Your task to perform on an android device: delete a single message in the gmail app Image 0: 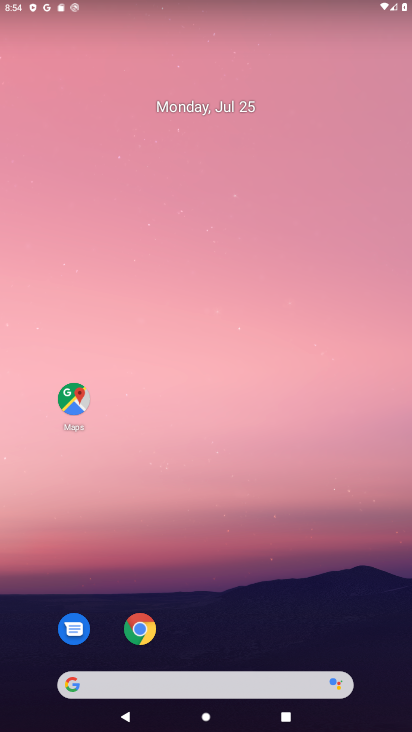
Step 0: click (113, 157)
Your task to perform on an android device: delete a single message in the gmail app Image 1: 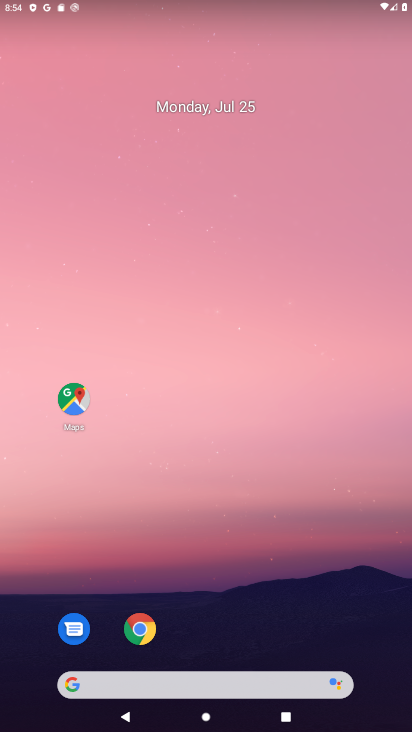
Step 1: drag from (178, 635) to (251, 108)
Your task to perform on an android device: delete a single message in the gmail app Image 2: 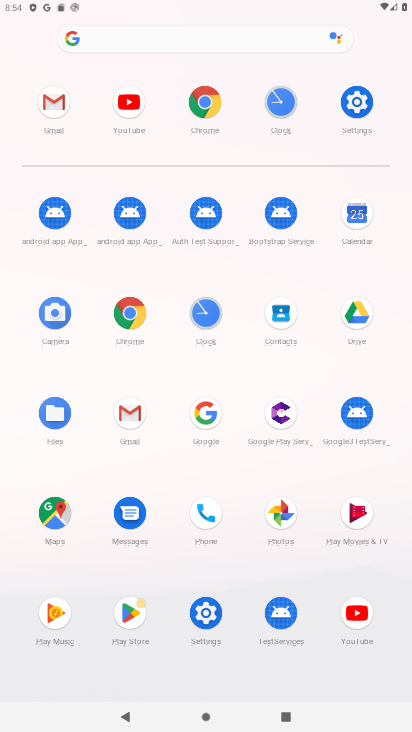
Step 2: click (45, 100)
Your task to perform on an android device: delete a single message in the gmail app Image 3: 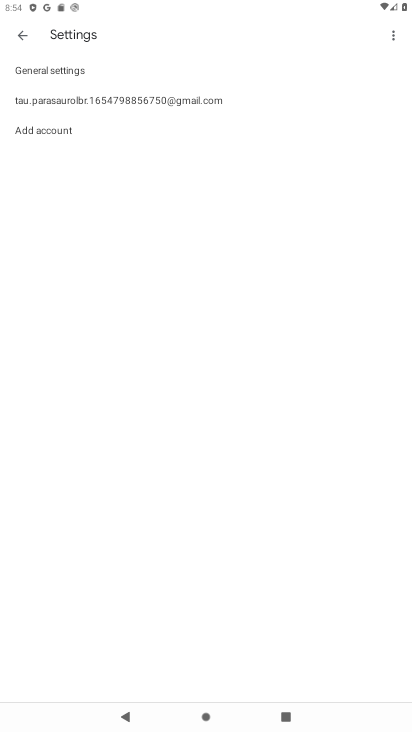
Step 3: click (25, 40)
Your task to perform on an android device: delete a single message in the gmail app Image 4: 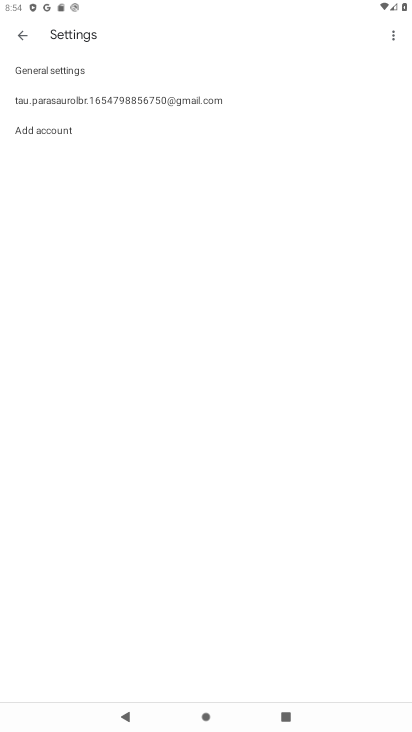
Step 4: click (25, 40)
Your task to perform on an android device: delete a single message in the gmail app Image 5: 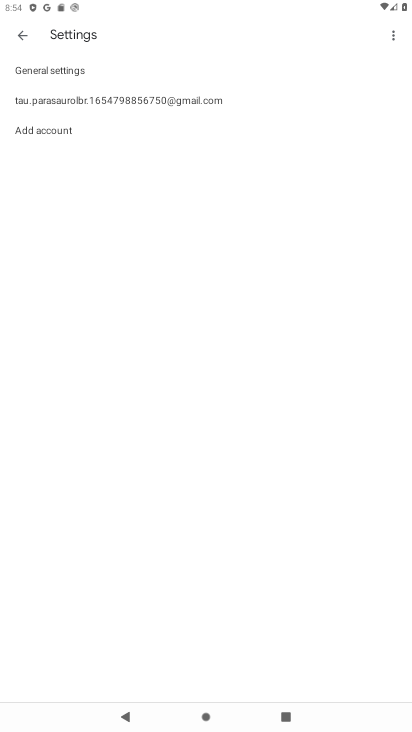
Step 5: click (25, 40)
Your task to perform on an android device: delete a single message in the gmail app Image 6: 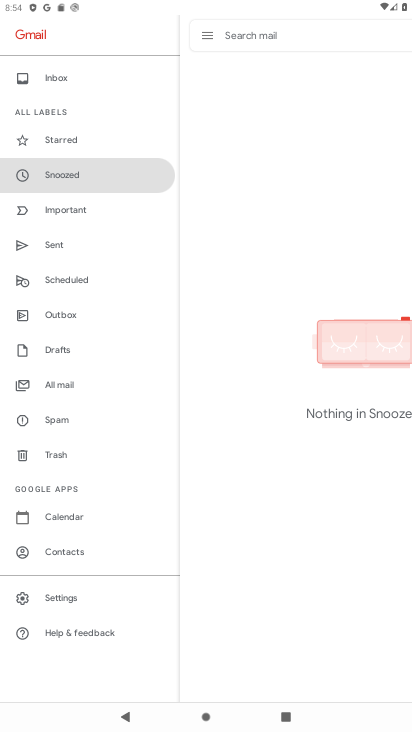
Step 6: click (65, 398)
Your task to perform on an android device: delete a single message in the gmail app Image 7: 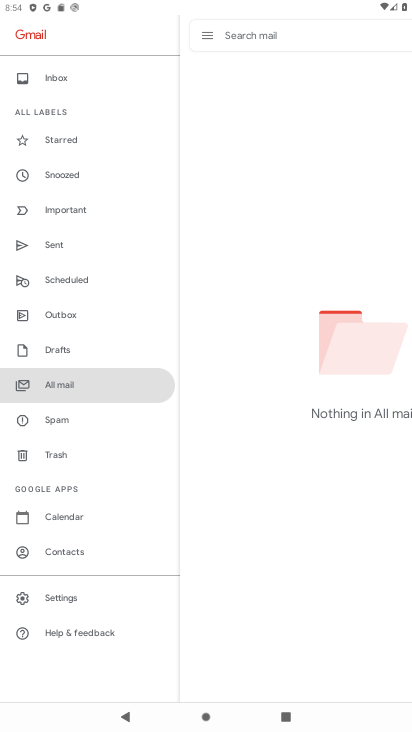
Step 7: task complete